Your task to perform on an android device: Go to Wikipedia Image 0: 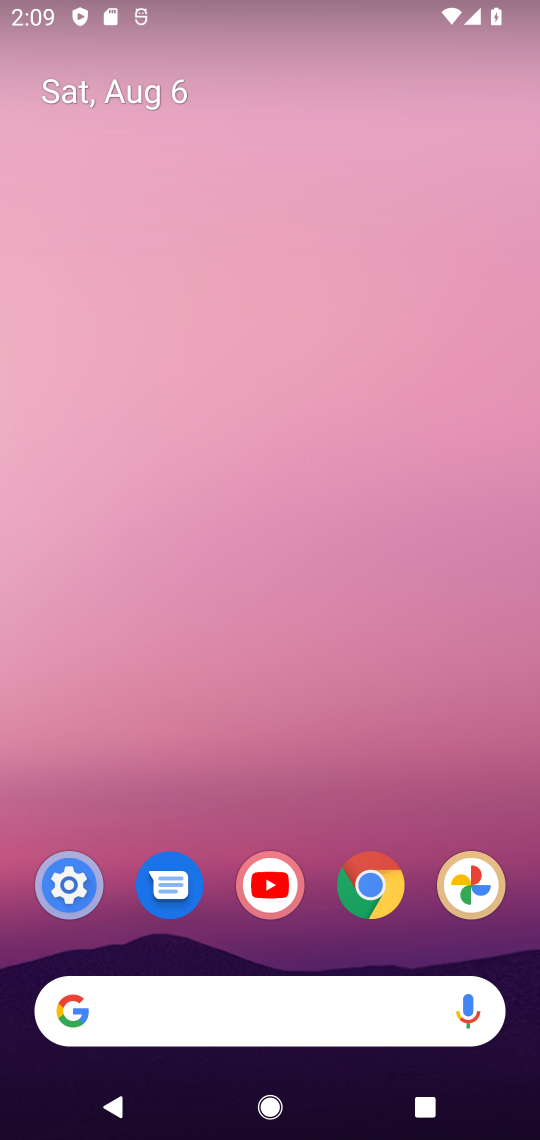
Step 0: drag from (437, 848) to (189, 140)
Your task to perform on an android device: Go to Wikipedia Image 1: 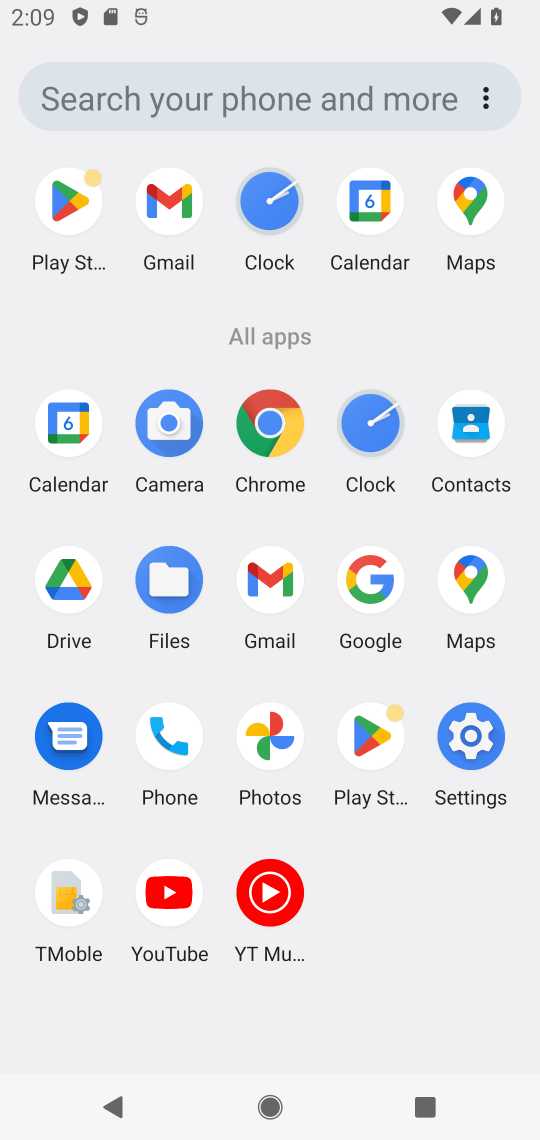
Step 1: click (379, 597)
Your task to perform on an android device: Go to Wikipedia Image 2: 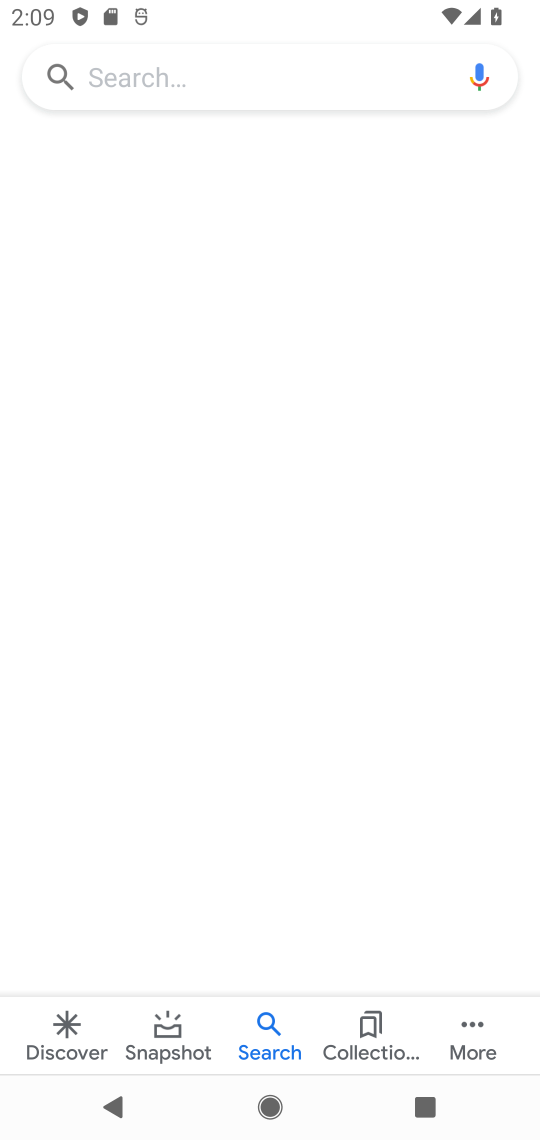
Step 2: click (137, 87)
Your task to perform on an android device: Go to Wikipedia Image 3: 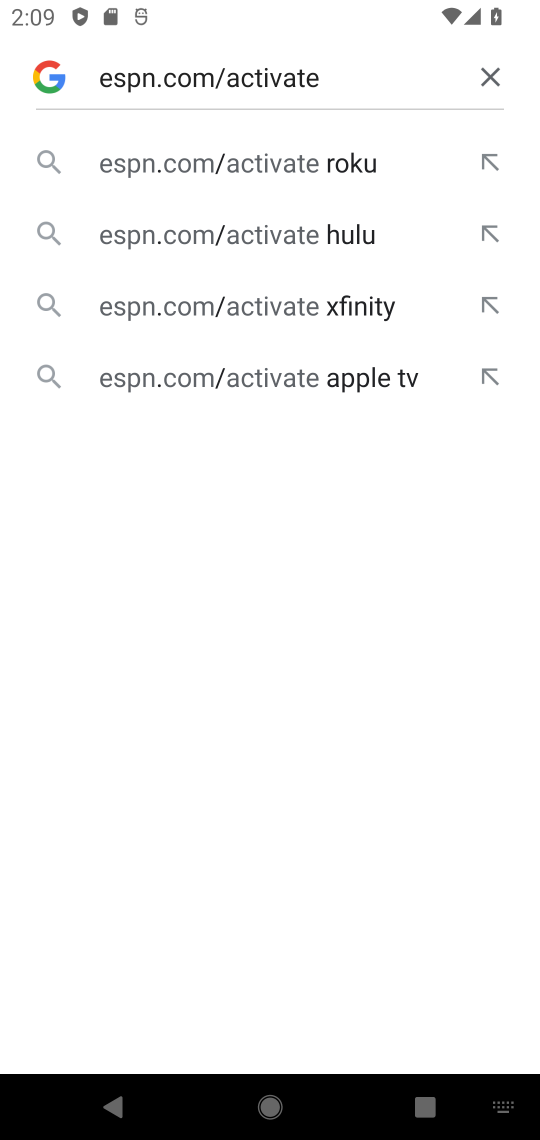
Step 3: click (499, 65)
Your task to perform on an android device: Go to Wikipedia Image 4: 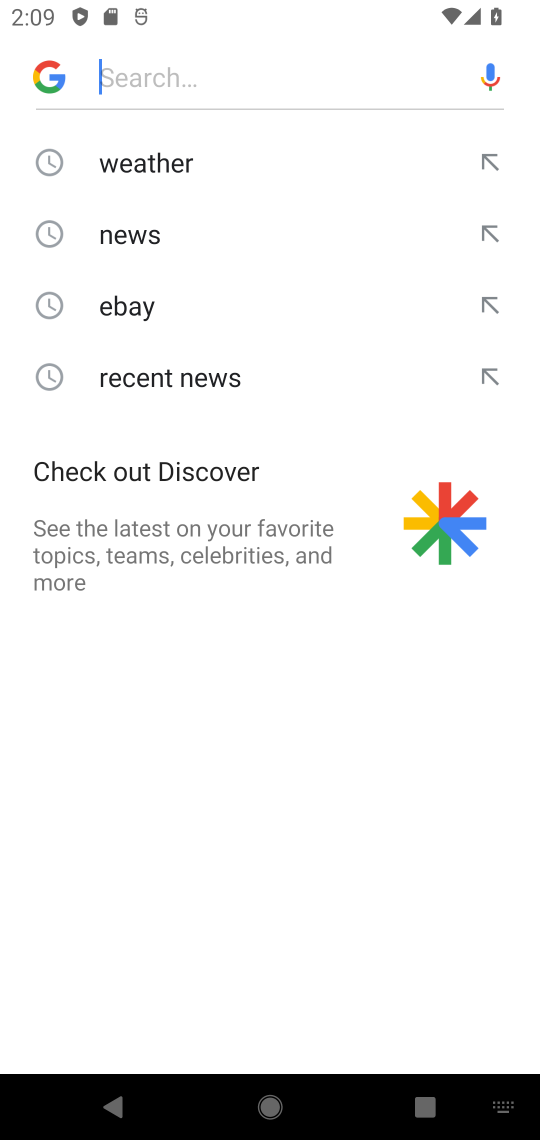
Step 4: type "Wikipedia"
Your task to perform on an android device: Go to Wikipedia Image 5: 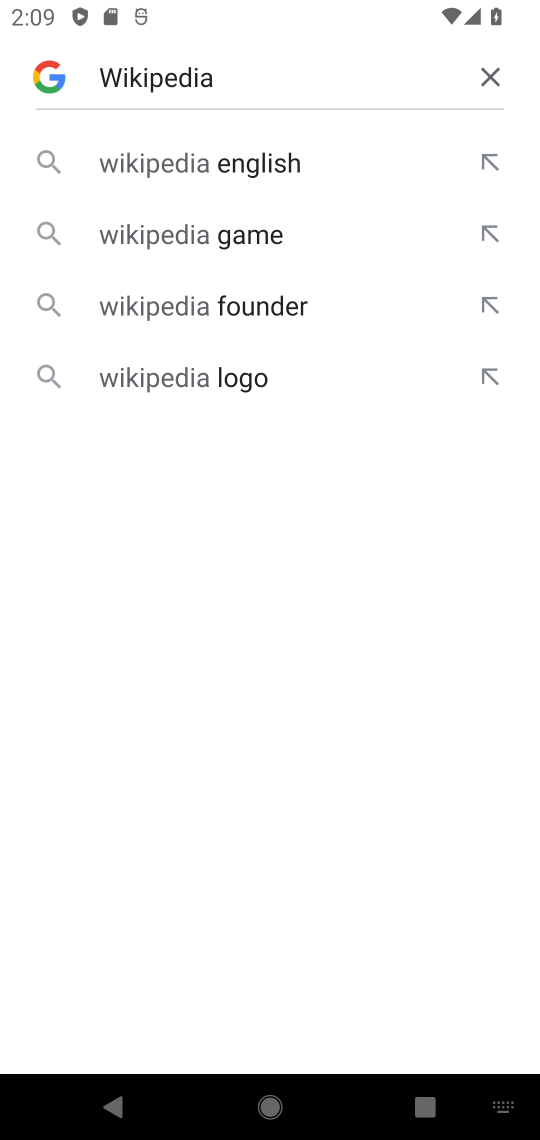
Step 5: task complete